Your task to perform on an android device: open chrome privacy settings Image 0: 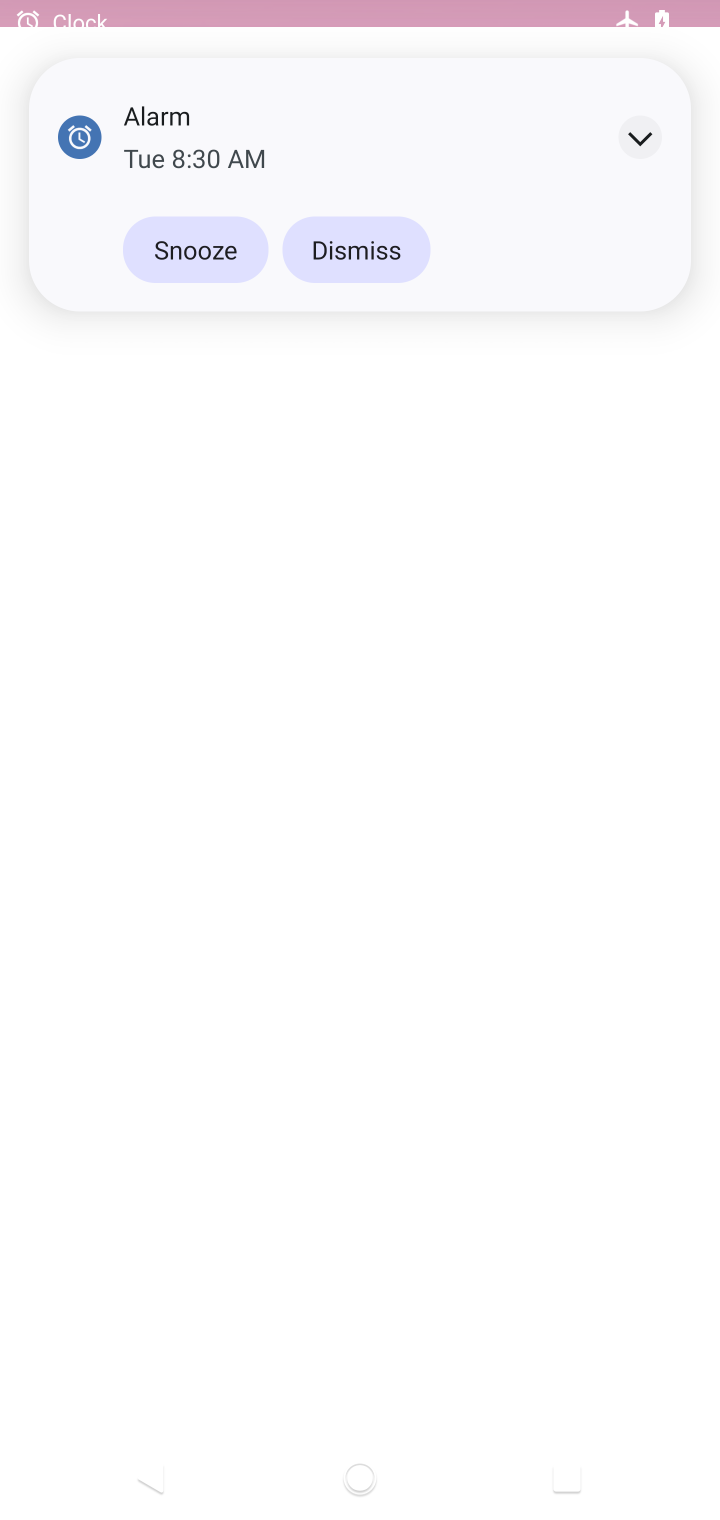
Step 0: click (665, 826)
Your task to perform on an android device: open chrome privacy settings Image 1: 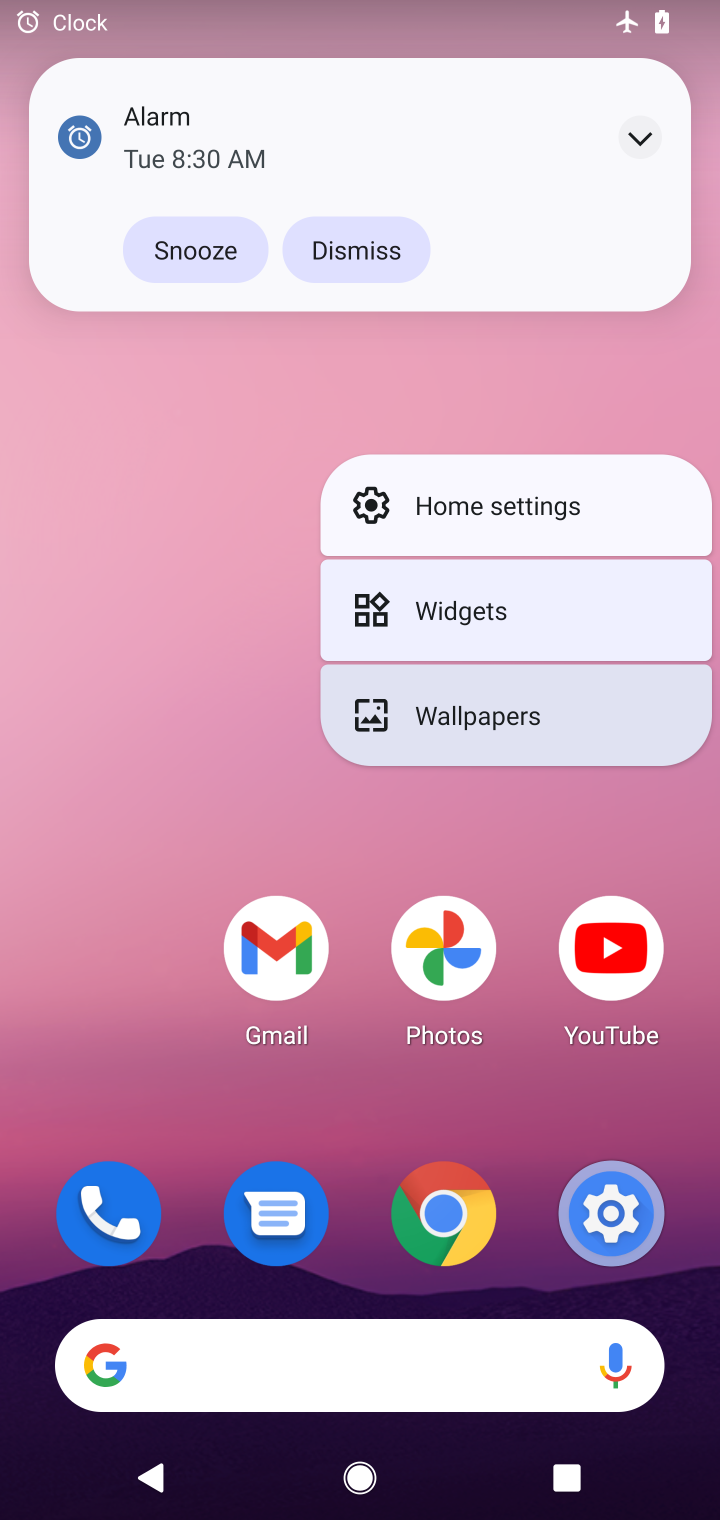
Step 1: click (122, 761)
Your task to perform on an android device: open chrome privacy settings Image 2: 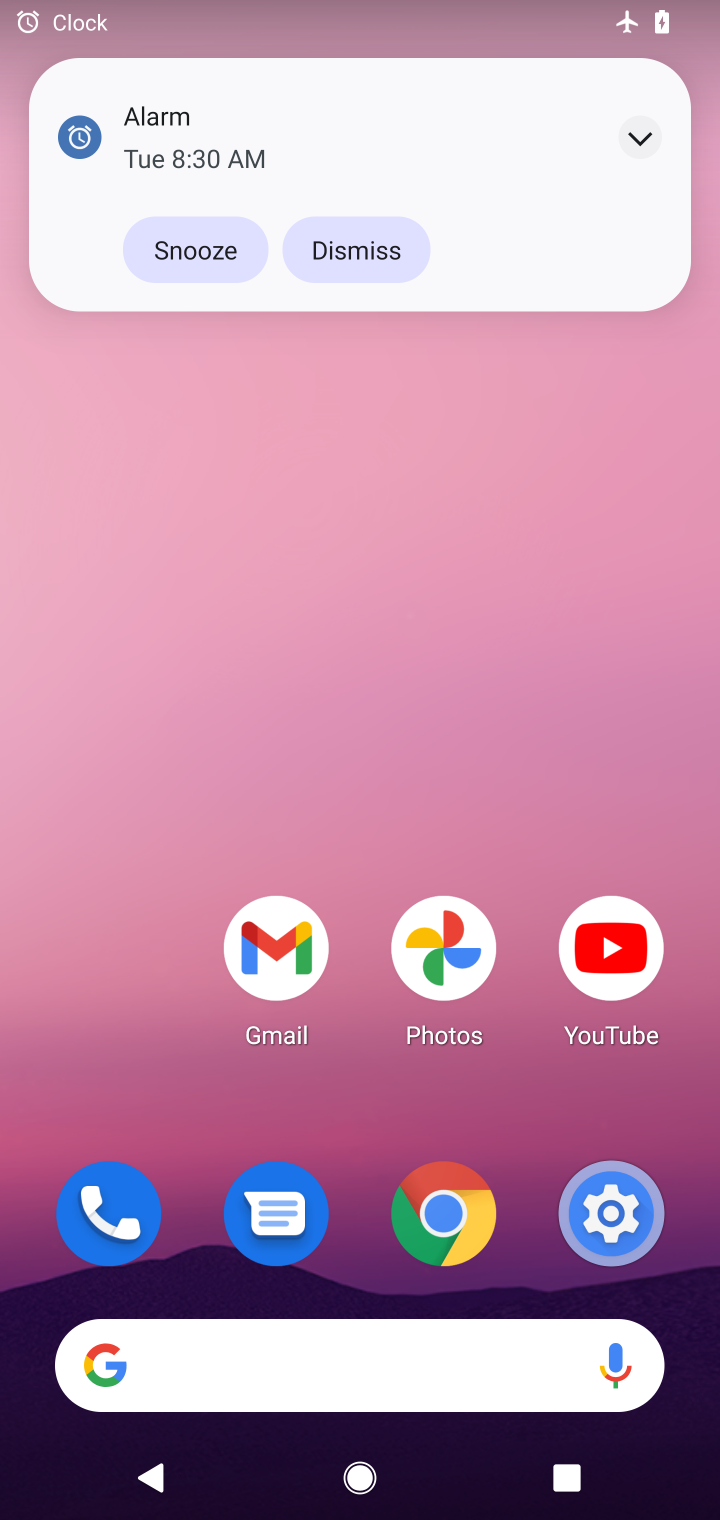
Step 2: drag from (277, 747) to (313, 163)
Your task to perform on an android device: open chrome privacy settings Image 3: 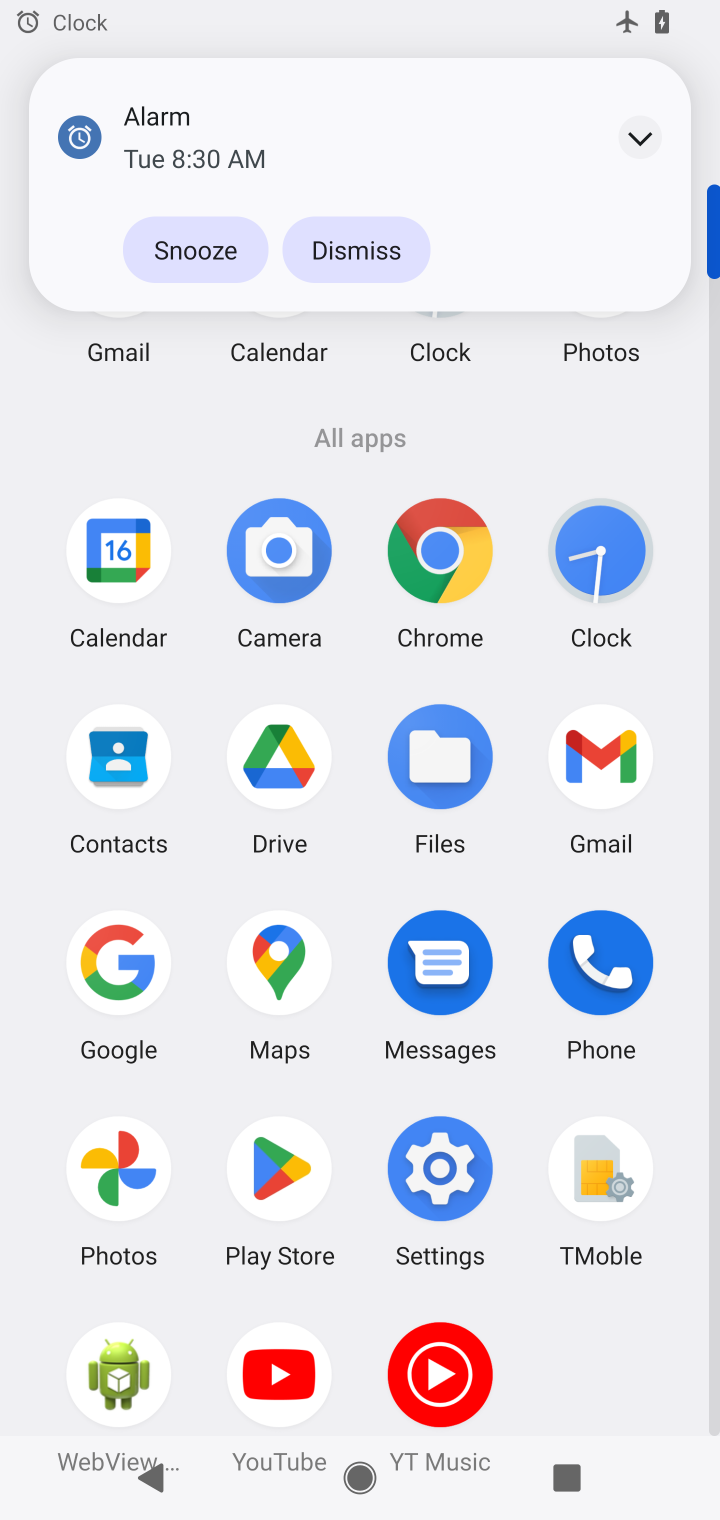
Step 3: click (454, 524)
Your task to perform on an android device: open chrome privacy settings Image 4: 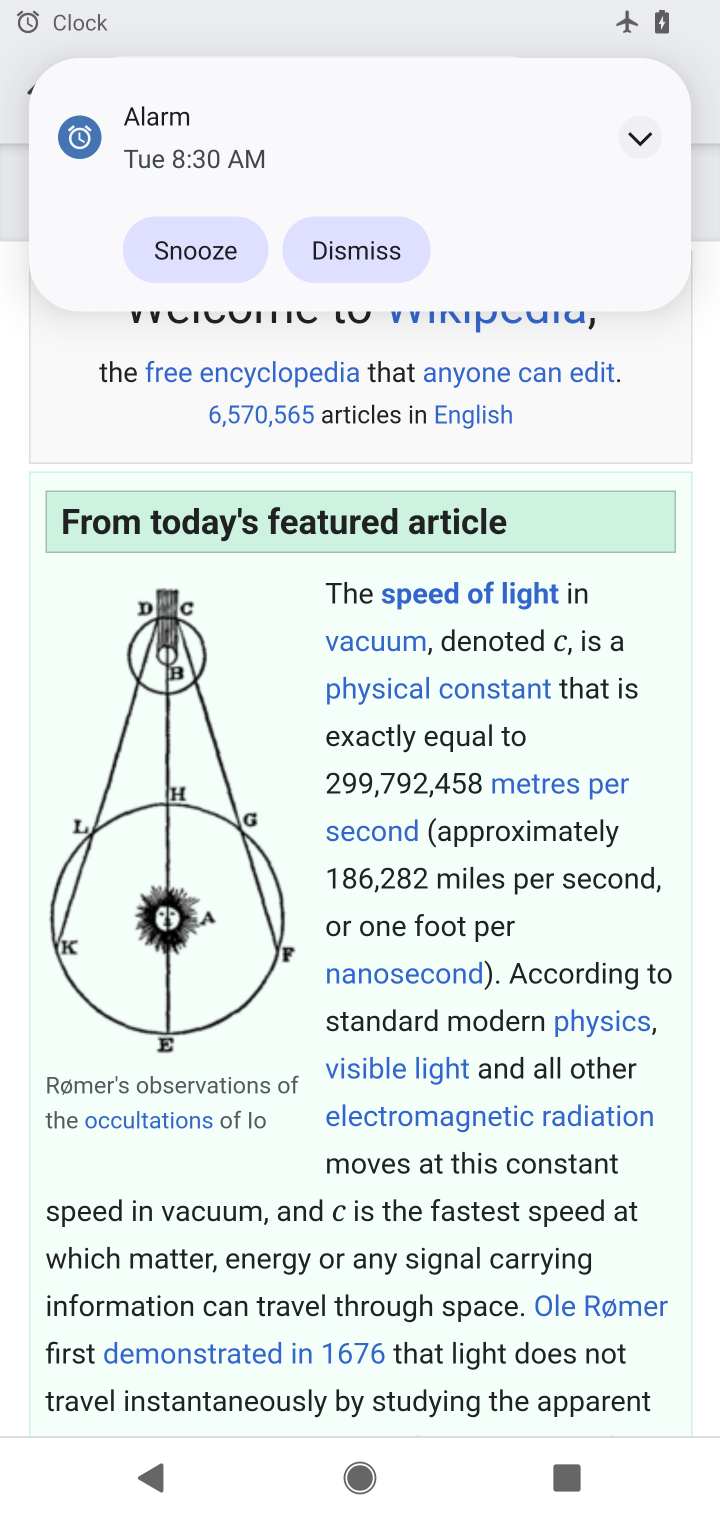
Step 4: click (675, 427)
Your task to perform on an android device: open chrome privacy settings Image 5: 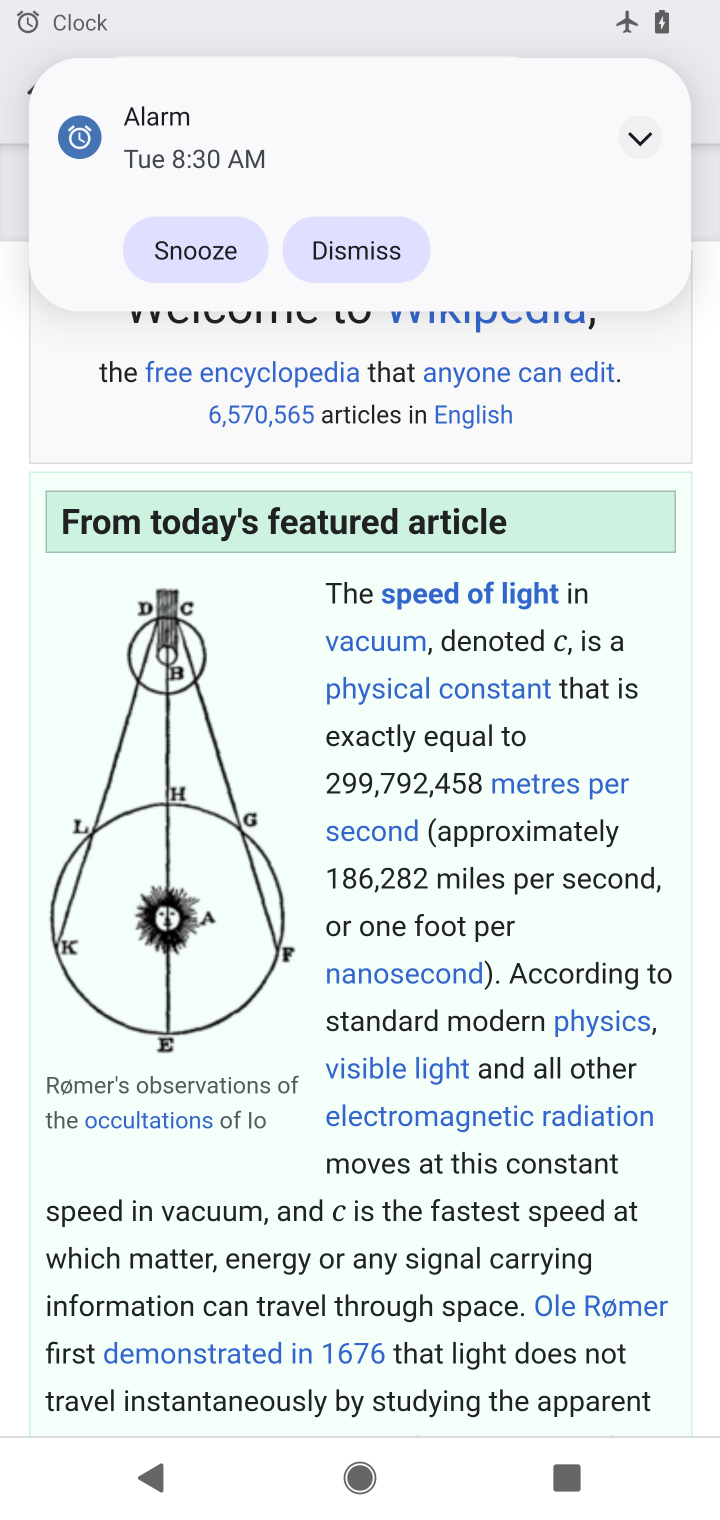
Step 5: click (358, 259)
Your task to perform on an android device: open chrome privacy settings Image 6: 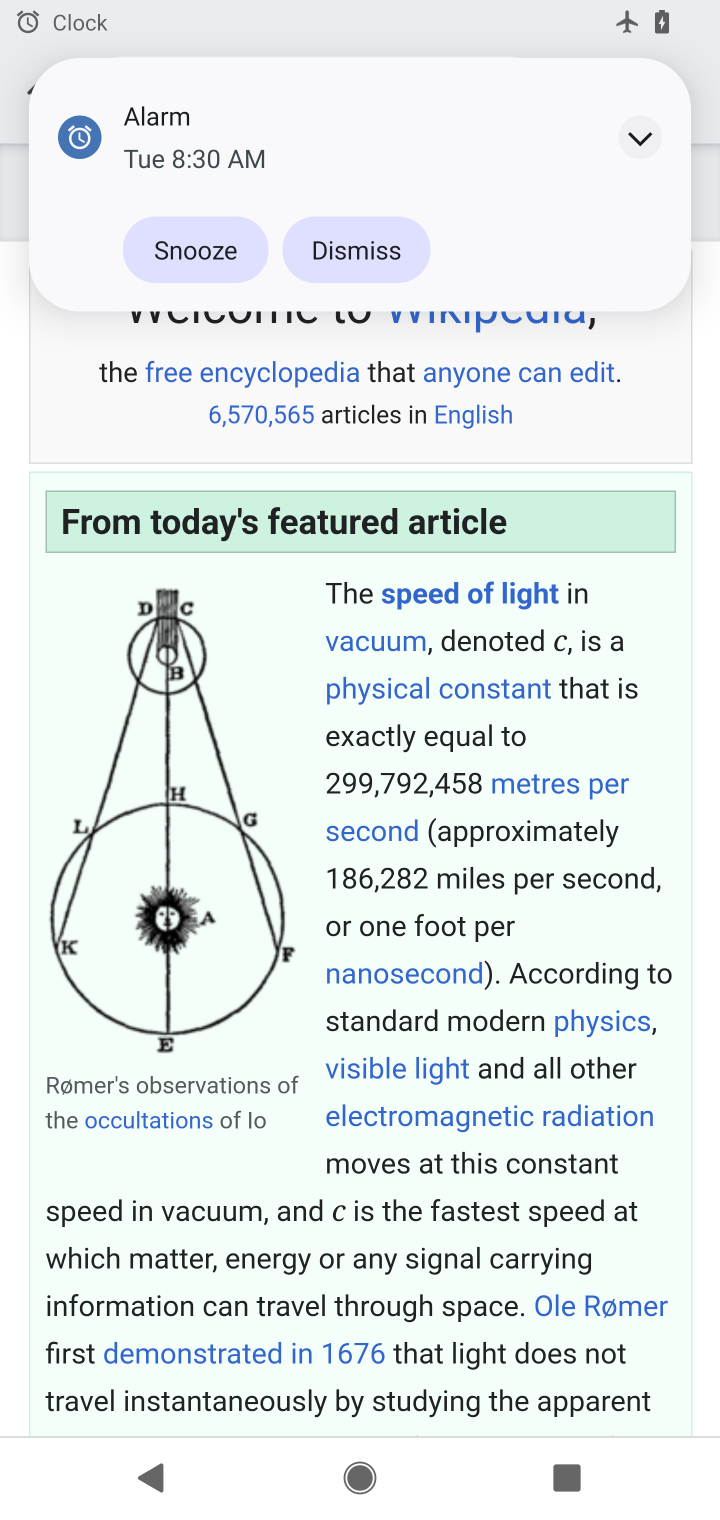
Step 6: click (641, 128)
Your task to perform on an android device: open chrome privacy settings Image 7: 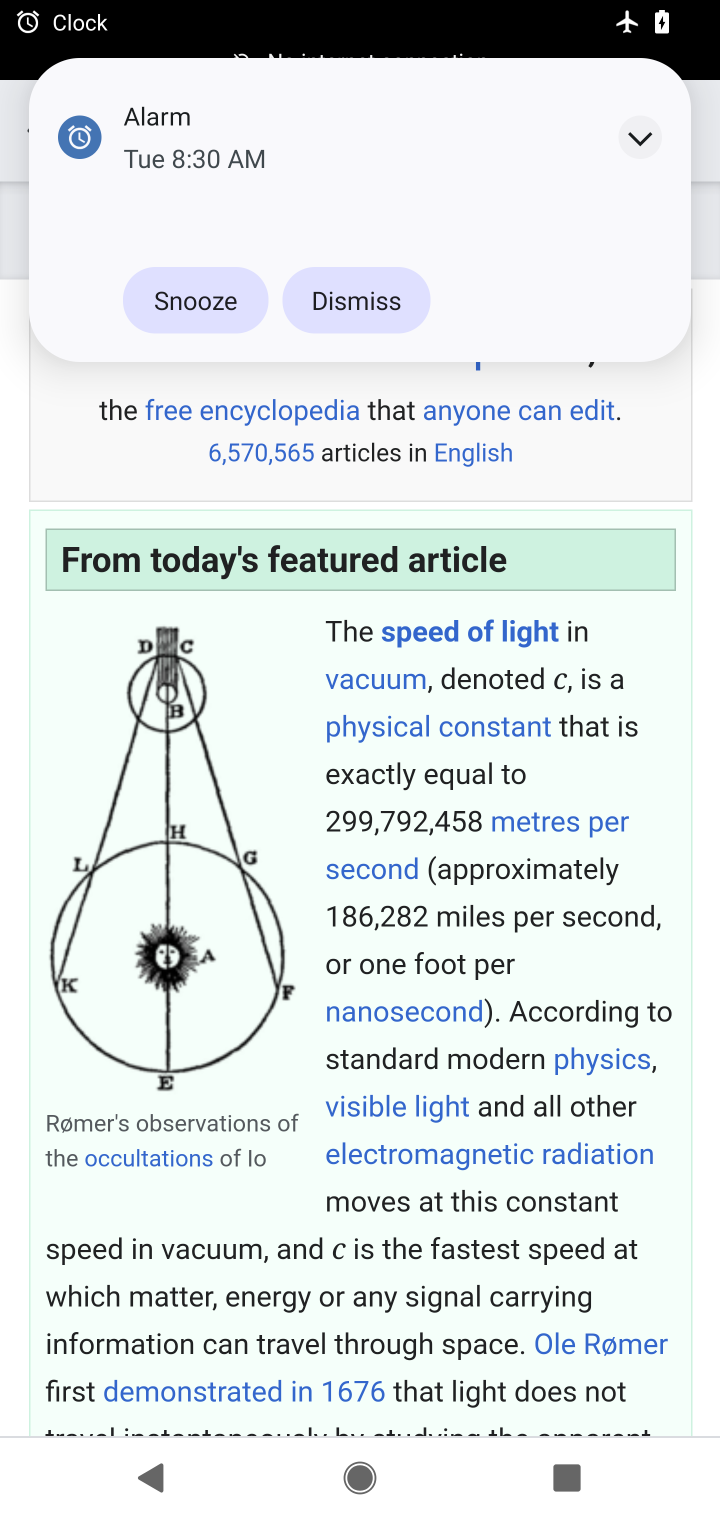
Step 7: click (376, 246)
Your task to perform on an android device: open chrome privacy settings Image 8: 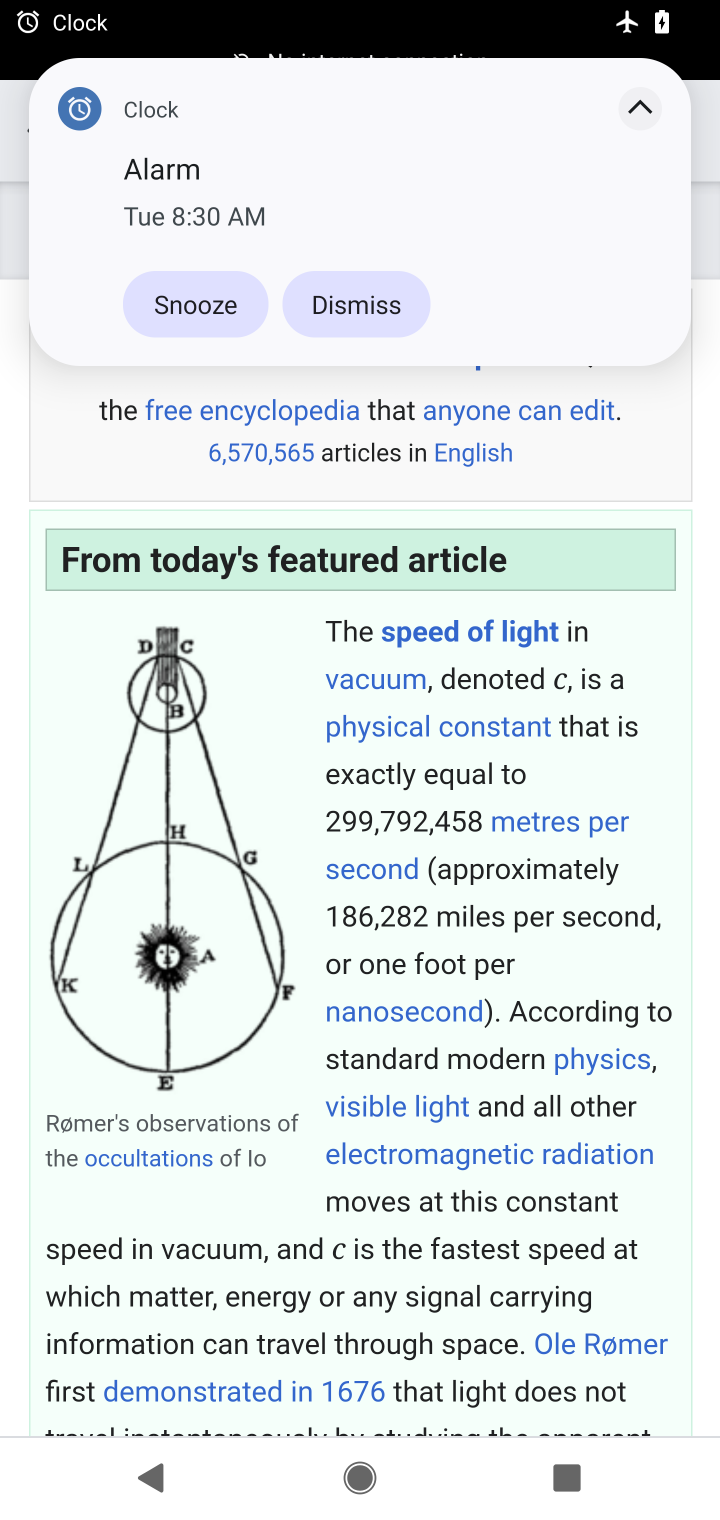
Step 8: click (380, 286)
Your task to perform on an android device: open chrome privacy settings Image 9: 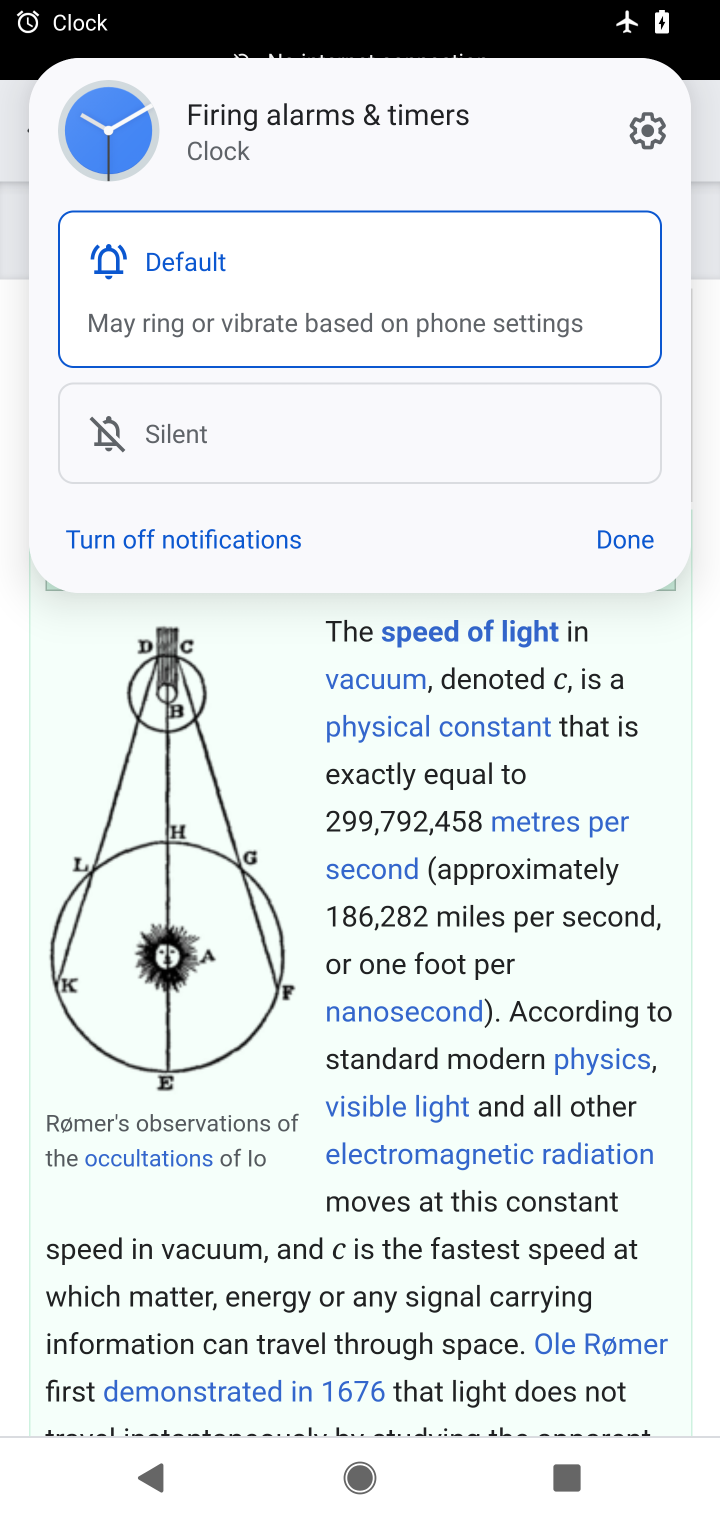
Step 9: click (623, 528)
Your task to perform on an android device: open chrome privacy settings Image 10: 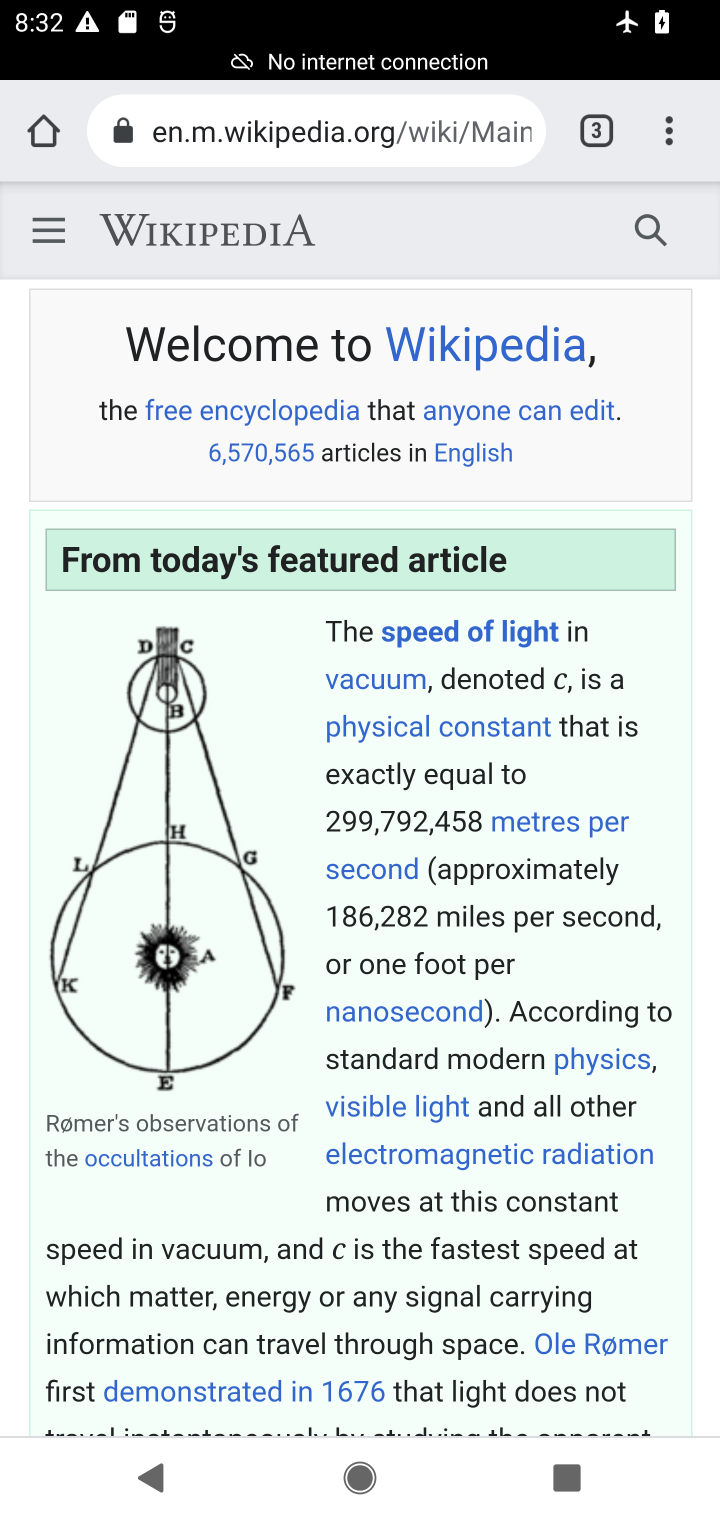
Step 10: click (665, 87)
Your task to perform on an android device: open chrome privacy settings Image 11: 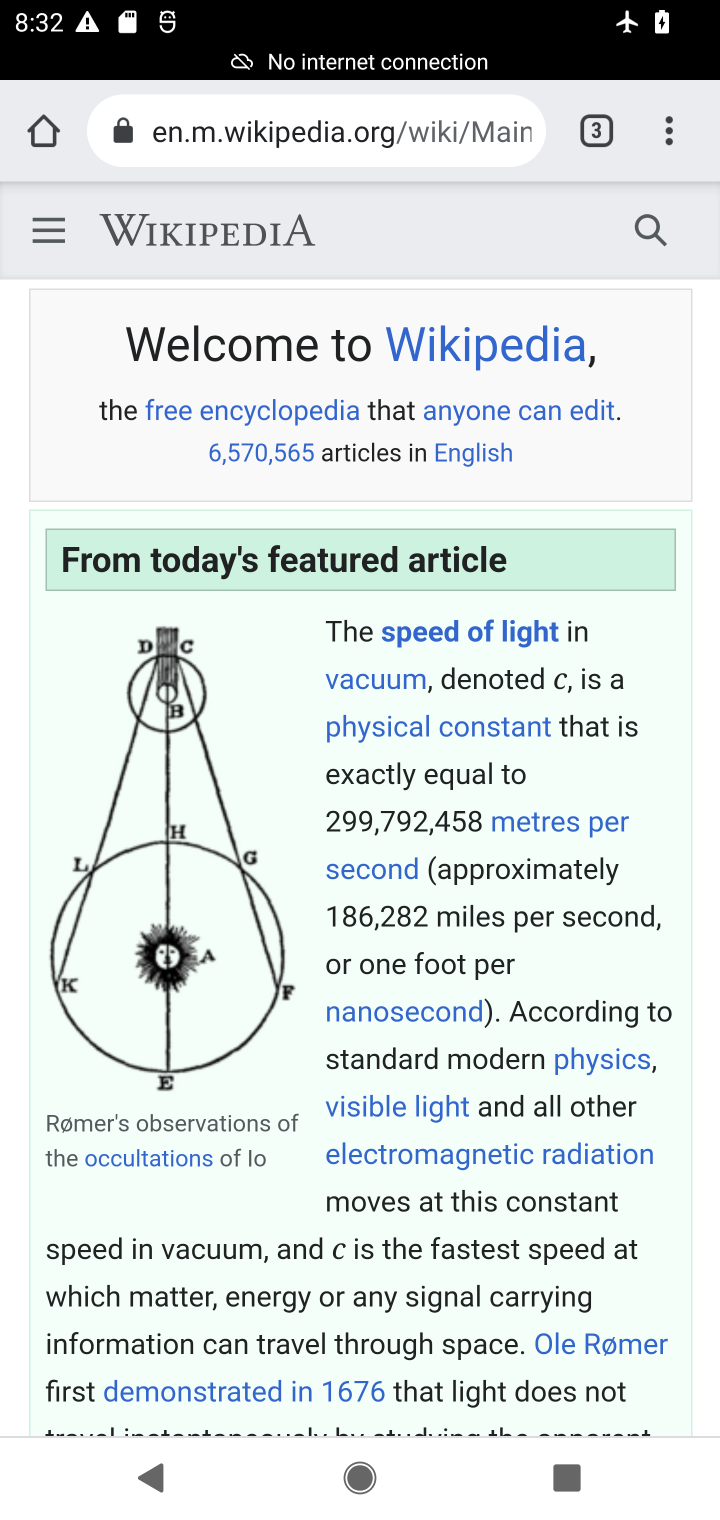
Step 11: click (677, 135)
Your task to perform on an android device: open chrome privacy settings Image 12: 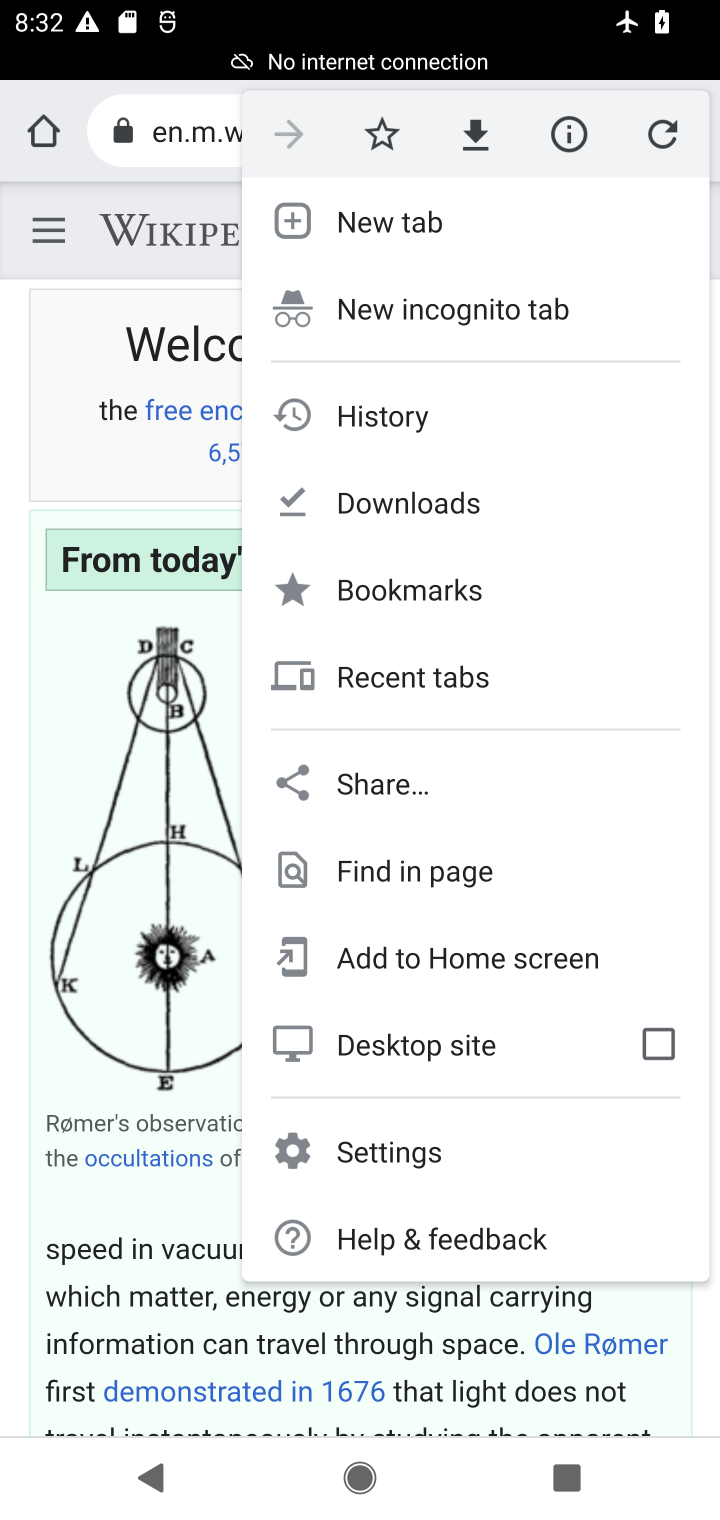
Step 12: click (401, 1139)
Your task to perform on an android device: open chrome privacy settings Image 13: 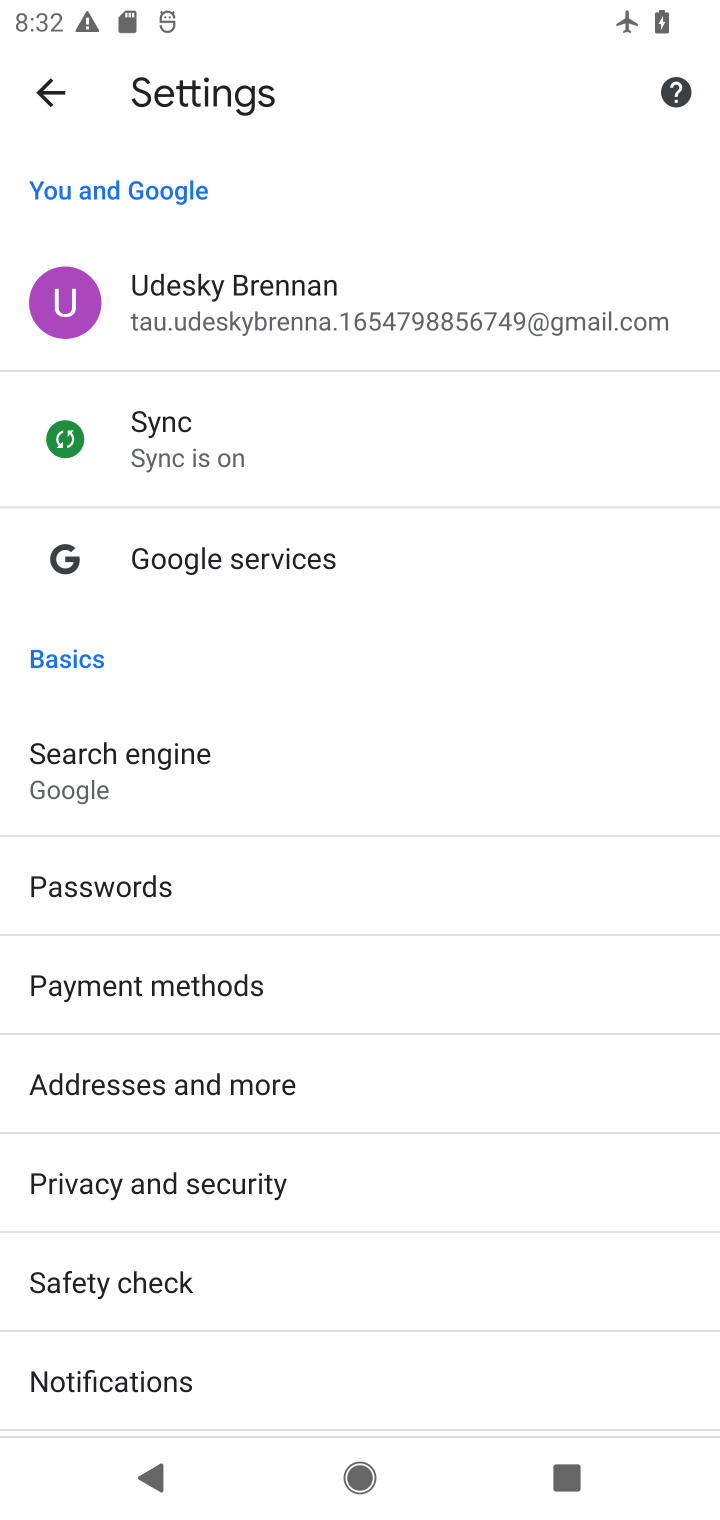
Step 13: click (195, 1188)
Your task to perform on an android device: open chrome privacy settings Image 14: 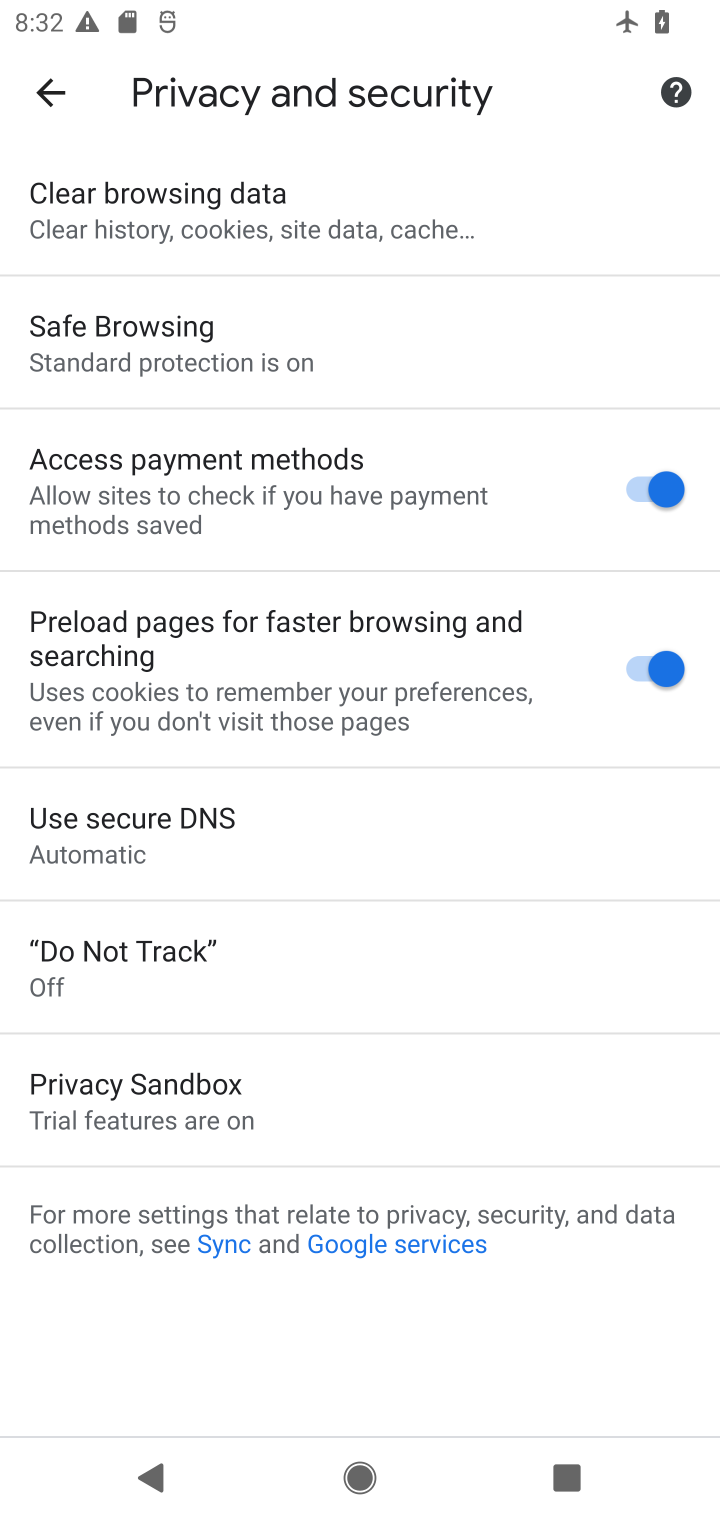
Step 14: task complete